Your task to perform on an android device: Search for sushi restaurants on Maps Image 0: 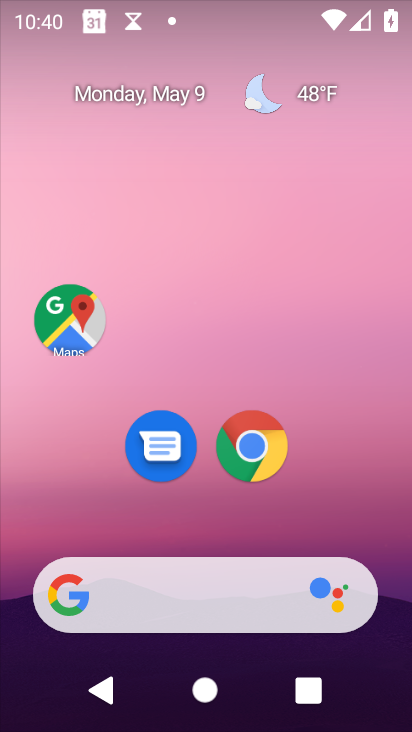
Step 0: click (67, 317)
Your task to perform on an android device: Search for sushi restaurants on Maps Image 1: 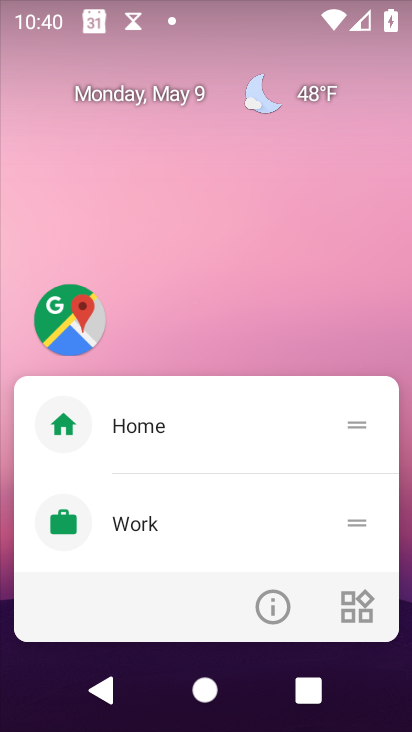
Step 1: click (66, 316)
Your task to perform on an android device: Search for sushi restaurants on Maps Image 2: 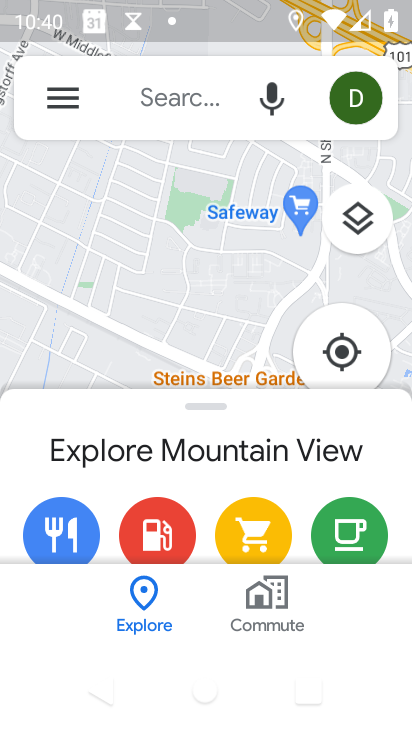
Step 2: click (154, 91)
Your task to perform on an android device: Search for sushi restaurants on Maps Image 3: 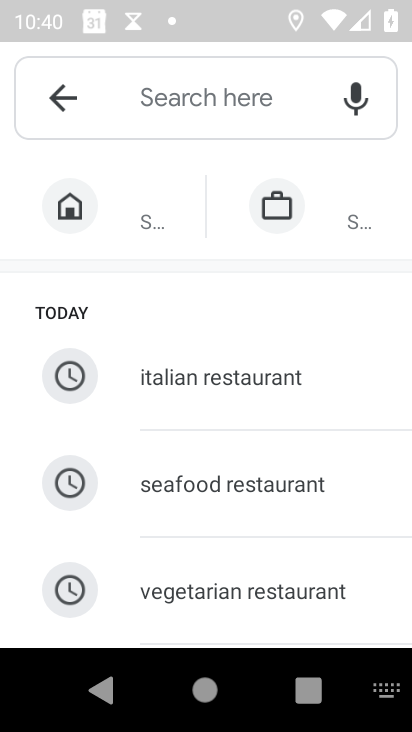
Step 3: drag from (197, 578) to (236, 236)
Your task to perform on an android device: Search for sushi restaurants on Maps Image 4: 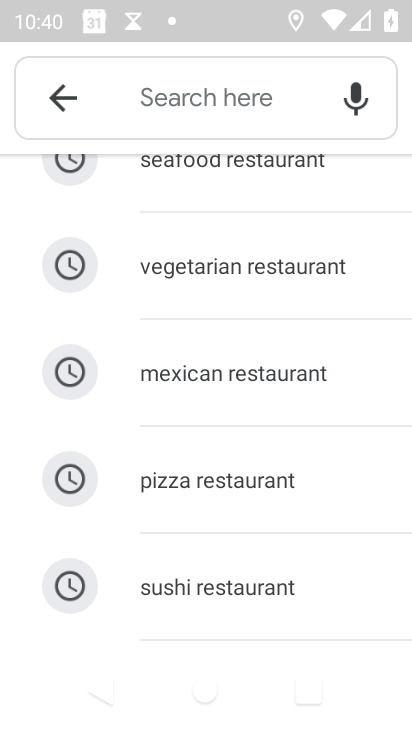
Step 4: click (218, 583)
Your task to perform on an android device: Search for sushi restaurants on Maps Image 5: 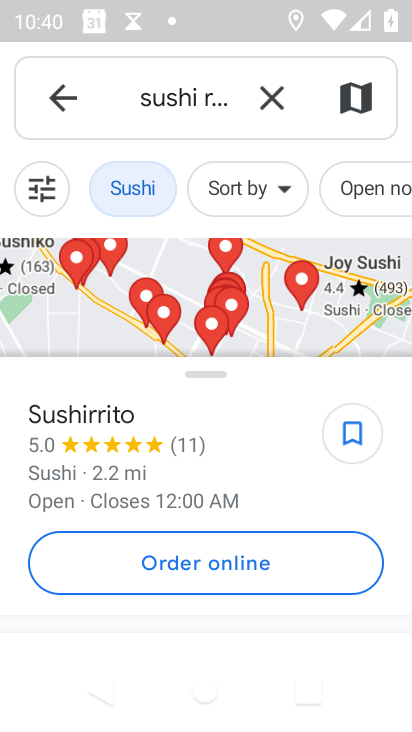
Step 5: task complete